Your task to perform on an android device: uninstall "Chime – Mobile Banking" Image 0: 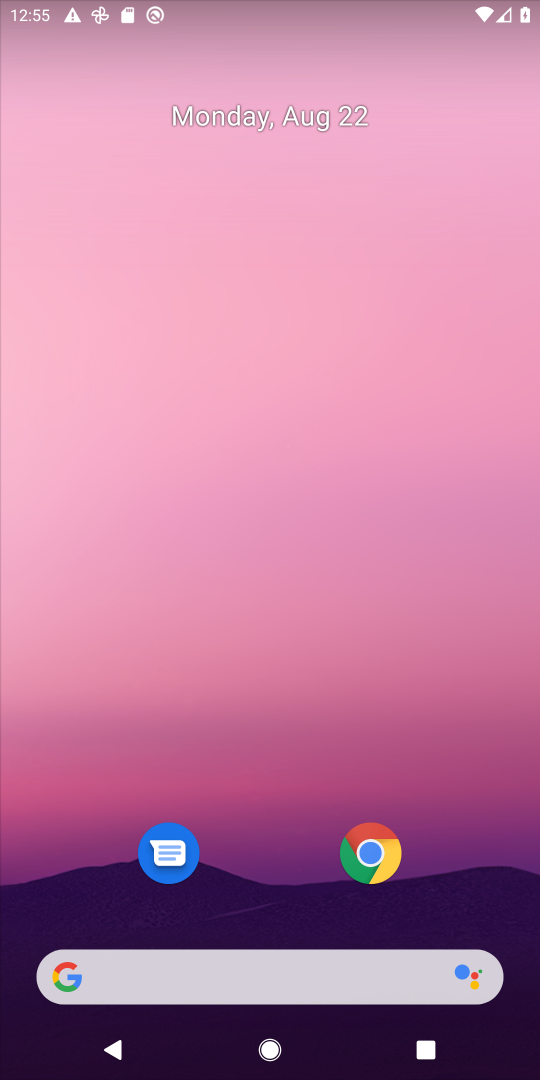
Step 0: drag from (223, 903) to (230, 682)
Your task to perform on an android device: uninstall "Chime – Mobile Banking" Image 1: 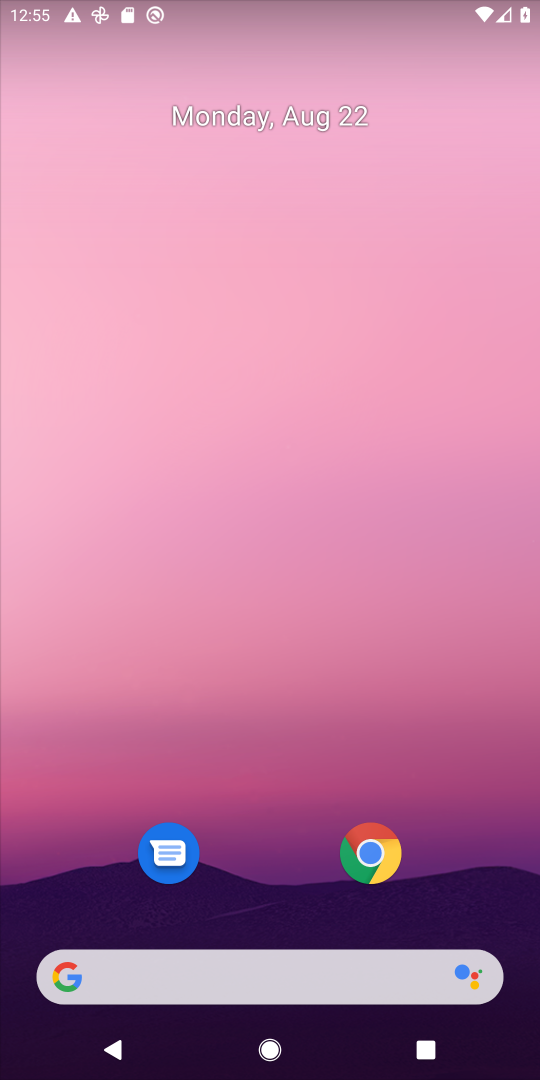
Step 1: drag from (302, 911) to (216, 1)
Your task to perform on an android device: uninstall "Chime – Mobile Banking" Image 2: 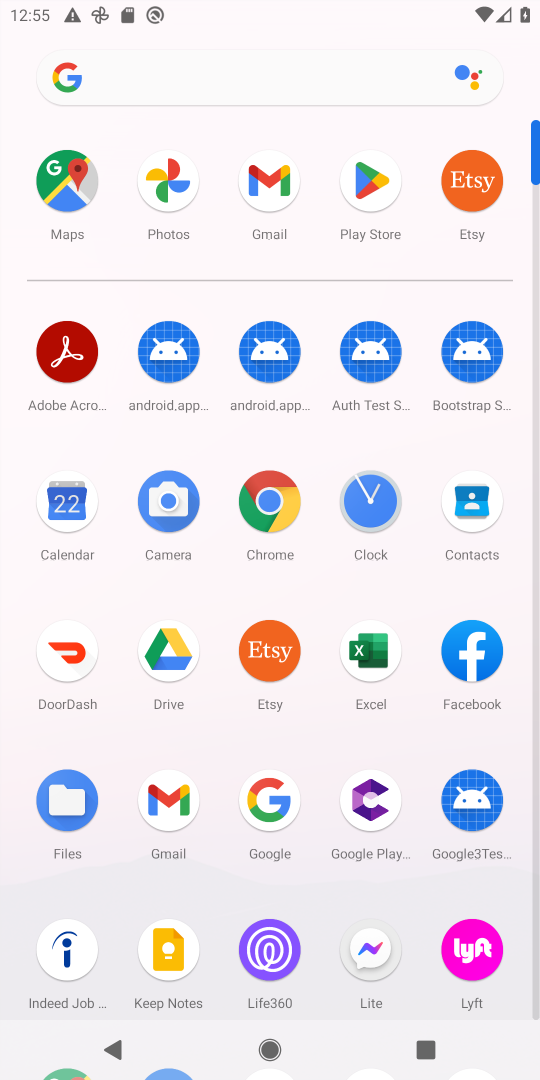
Step 2: click (367, 164)
Your task to perform on an android device: uninstall "Chime – Mobile Banking" Image 3: 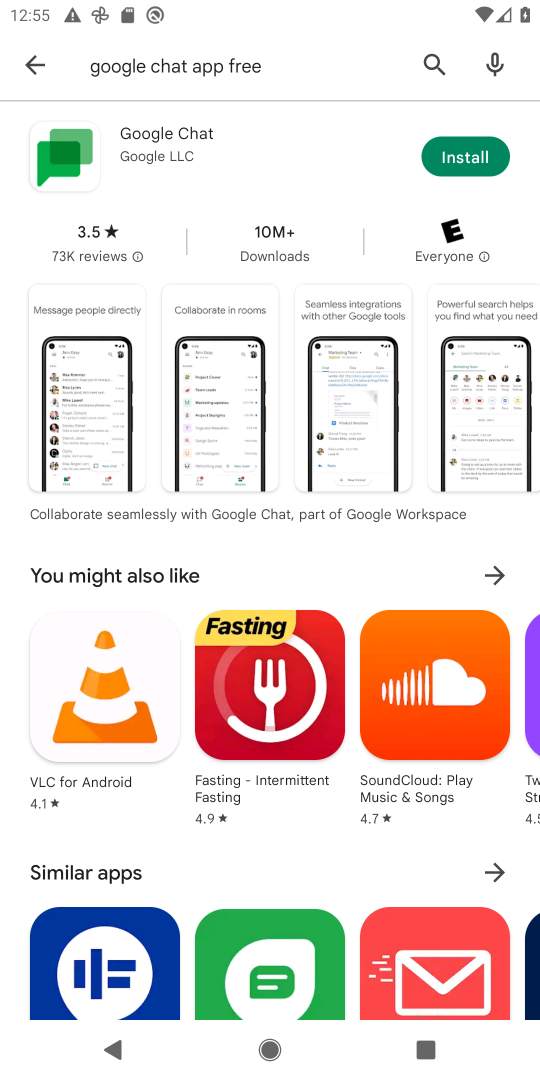
Step 3: click (27, 39)
Your task to perform on an android device: uninstall "Chime – Mobile Banking" Image 4: 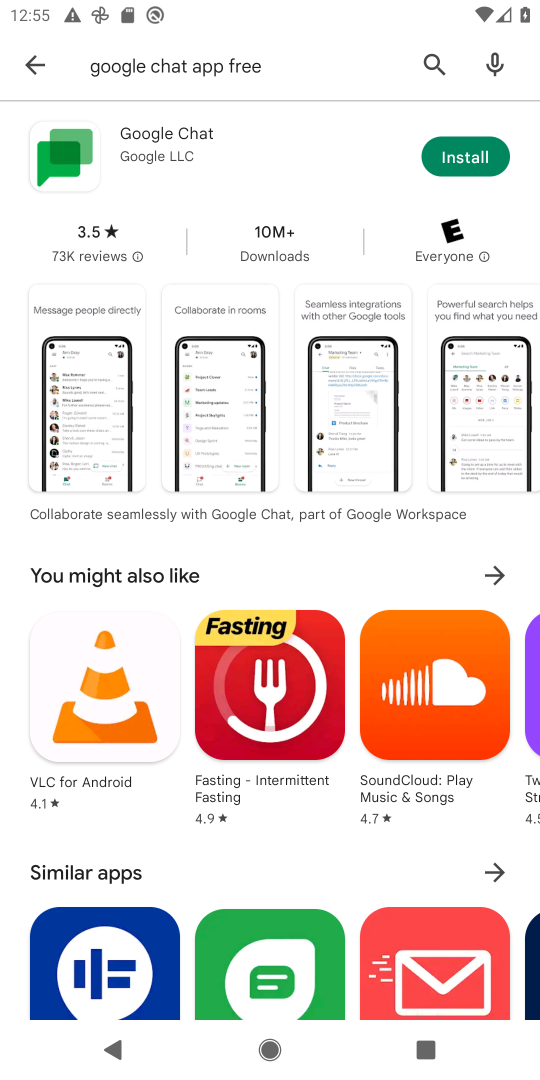
Step 4: click (29, 65)
Your task to perform on an android device: uninstall "Chime – Mobile Banking" Image 5: 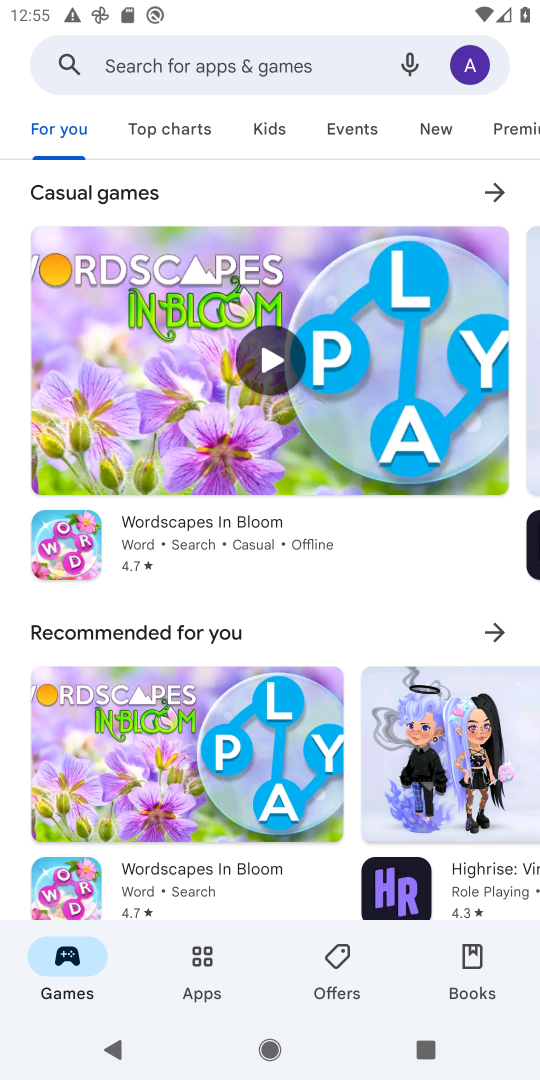
Step 5: click (143, 57)
Your task to perform on an android device: uninstall "Chime – Mobile Banking" Image 6: 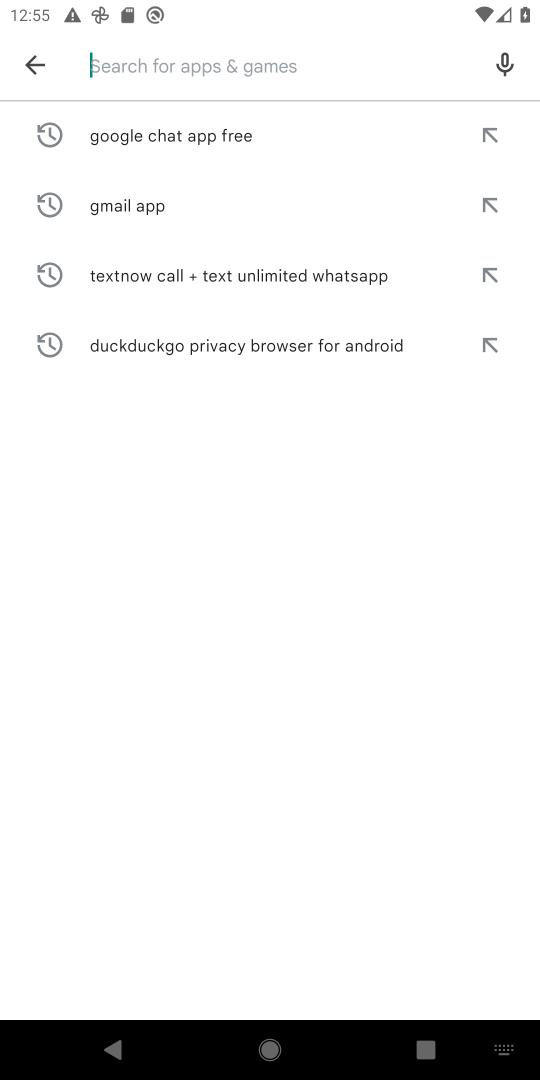
Step 6: type "chime "
Your task to perform on an android device: uninstall "Chime – Mobile Banking" Image 7: 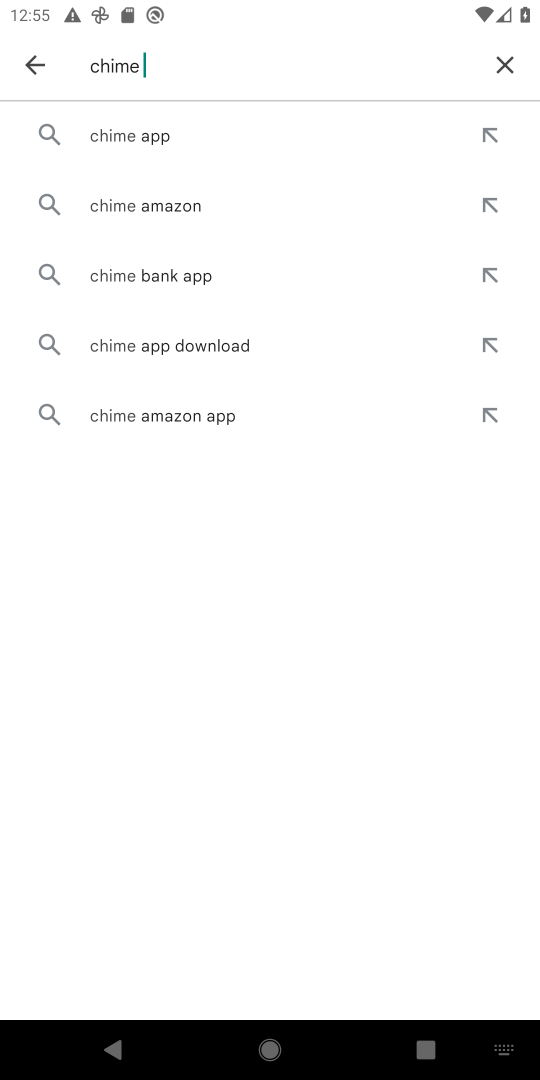
Step 7: click (190, 125)
Your task to perform on an android device: uninstall "Chime – Mobile Banking" Image 8: 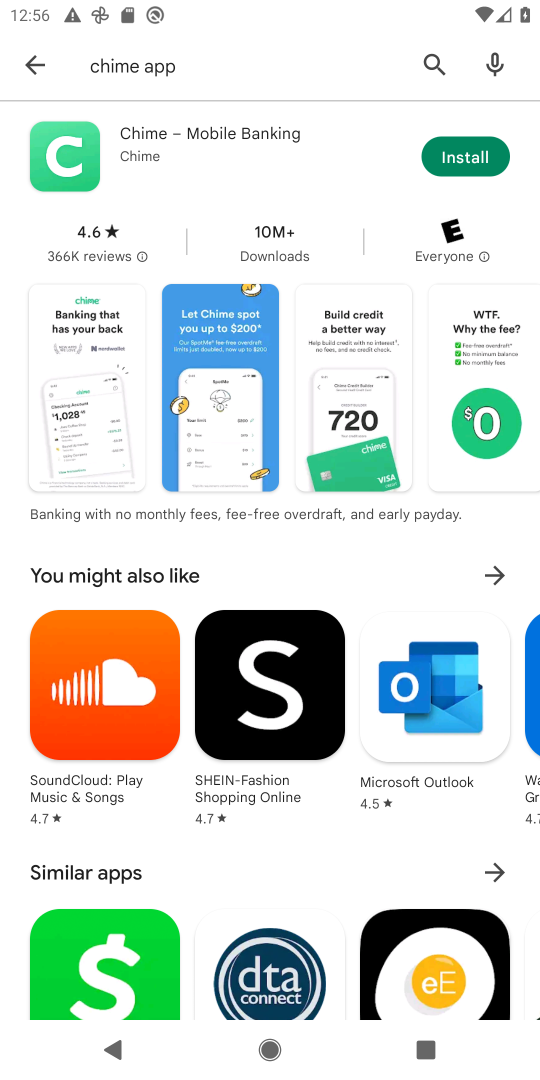
Step 8: click (130, 159)
Your task to perform on an android device: uninstall "Chime – Mobile Banking" Image 9: 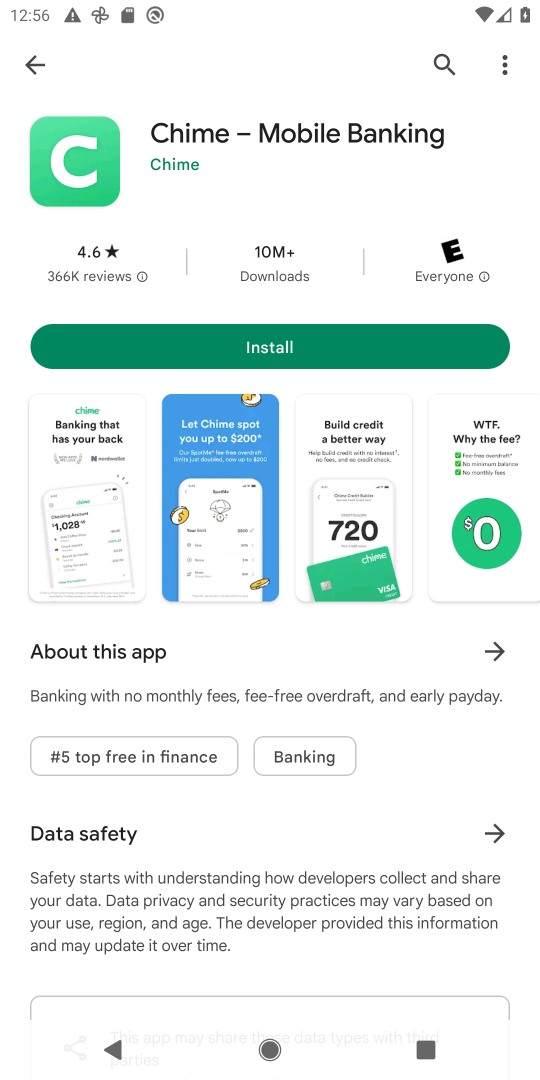
Step 9: task complete